Your task to perform on an android device: toggle improve location accuracy Image 0: 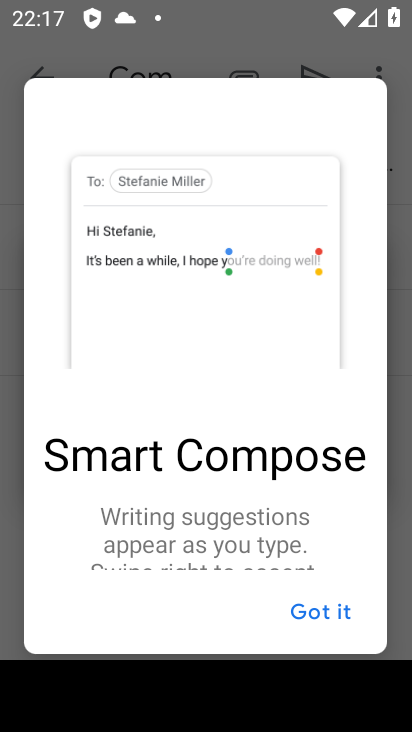
Step 0: press home button
Your task to perform on an android device: toggle improve location accuracy Image 1: 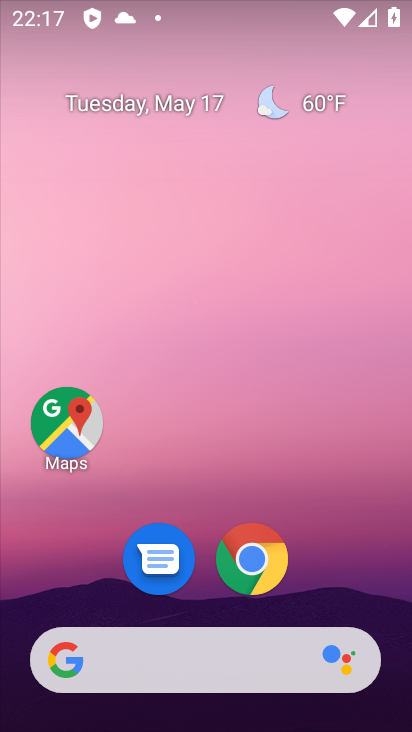
Step 1: drag from (342, 588) to (301, 189)
Your task to perform on an android device: toggle improve location accuracy Image 2: 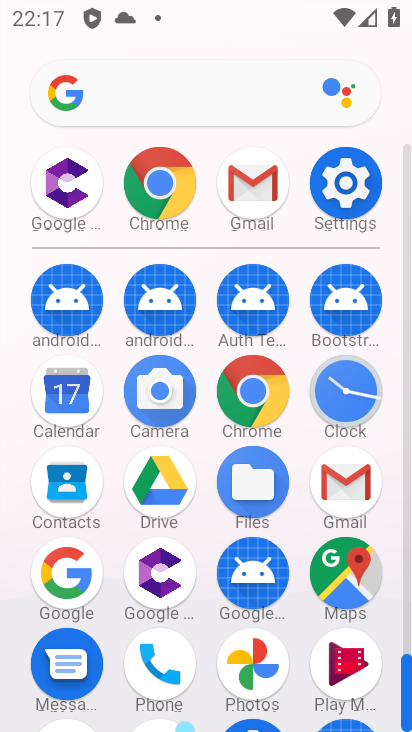
Step 2: click (358, 193)
Your task to perform on an android device: toggle improve location accuracy Image 3: 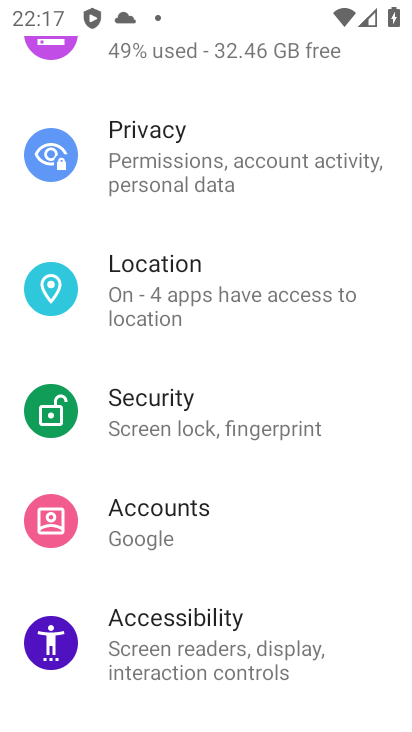
Step 3: click (227, 306)
Your task to perform on an android device: toggle improve location accuracy Image 4: 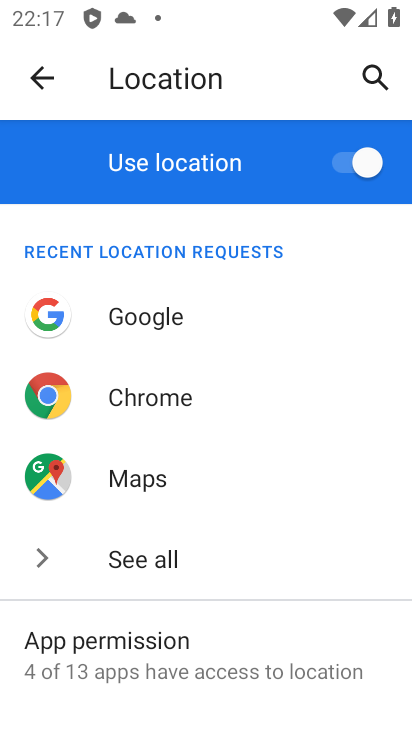
Step 4: drag from (235, 624) to (289, 176)
Your task to perform on an android device: toggle improve location accuracy Image 5: 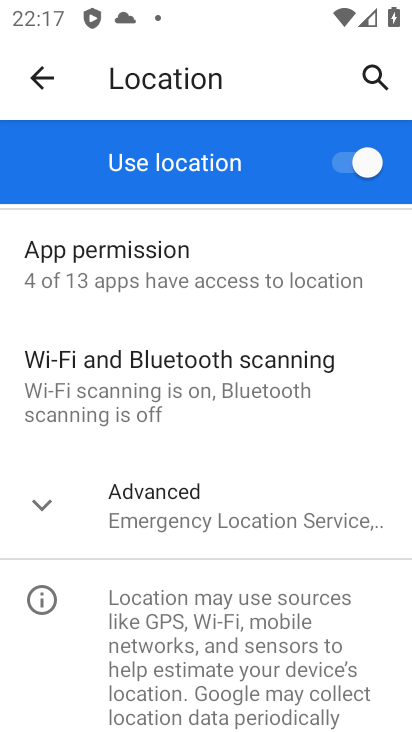
Step 5: click (216, 506)
Your task to perform on an android device: toggle improve location accuracy Image 6: 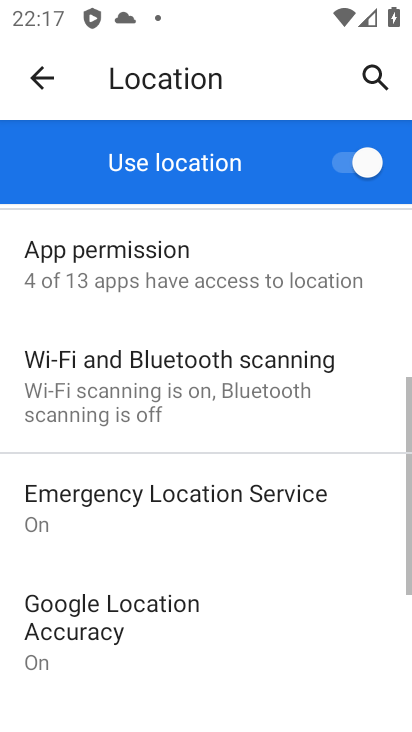
Step 6: drag from (214, 633) to (303, 178)
Your task to perform on an android device: toggle improve location accuracy Image 7: 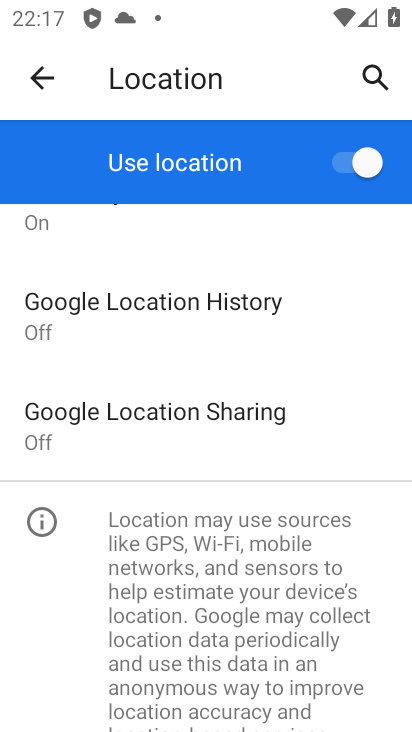
Step 7: drag from (257, 360) to (232, 583)
Your task to perform on an android device: toggle improve location accuracy Image 8: 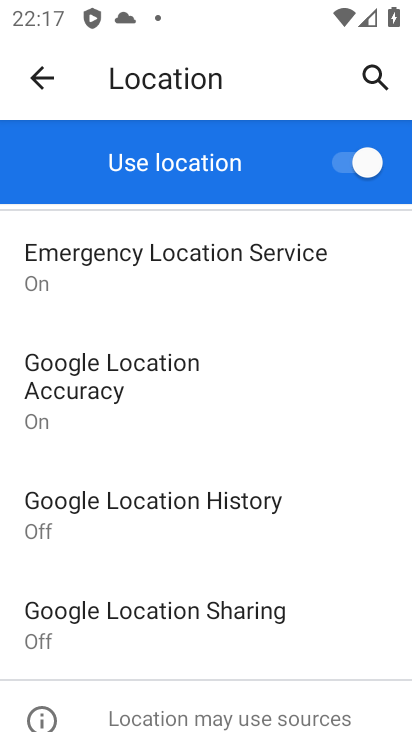
Step 8: click (131, 381)
Your task to perform on an android device: toggle improve location accuracy Image 9: 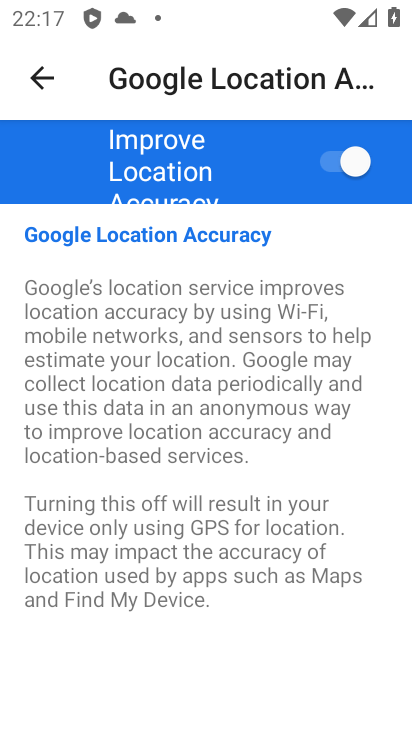
Step 9: click (360, 158)
Your task to perform on an android device: toggle improve location accuracy Image 10: 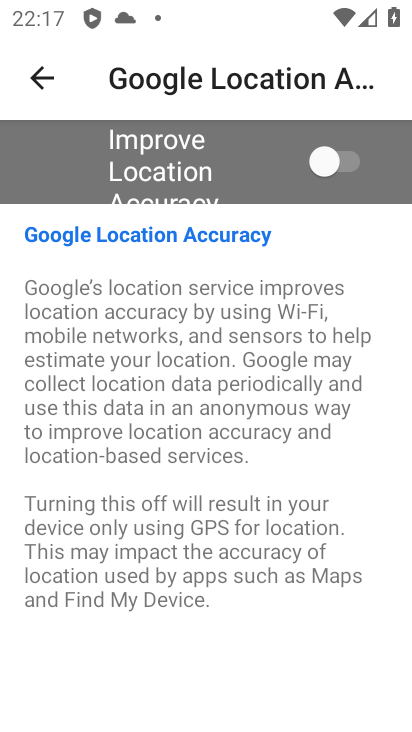
Step 10: task complete